Your task to perform on an android device: Go to Google maps Image 0: 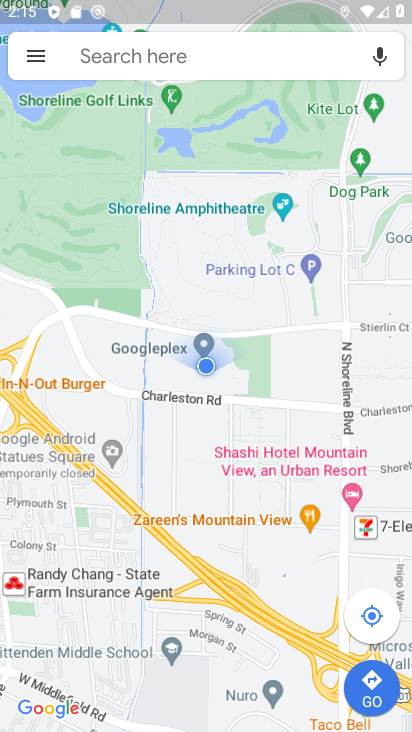
Step 0: task complete